Your task to perform on an android device: Open battery settings Image 0: 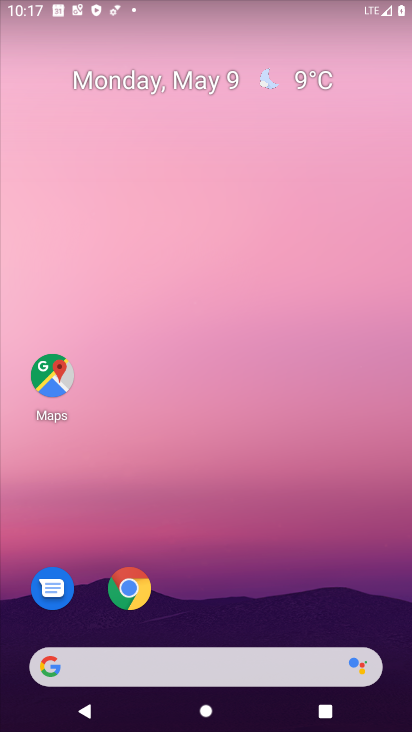
Step 0: press home button
Your task to perform on an android device: Open battery settings Image 1: 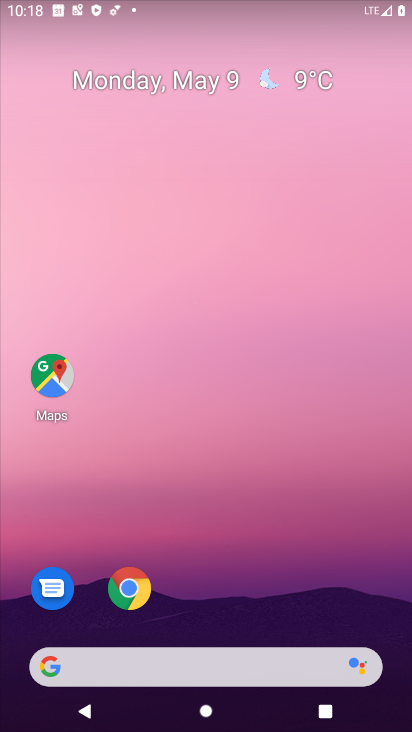
Step 1: drag from (197, 665) to (303, 5)
Your task to perform on an android device: Open battery settings Image 2: 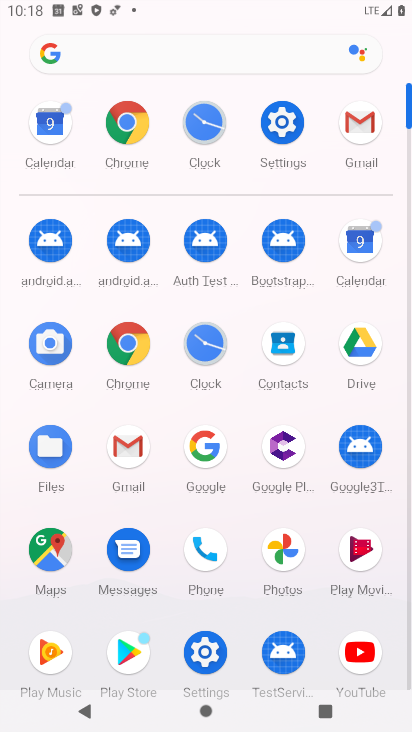
Step 2: click (279, 126)
Your task to perform on an android device: Open battery settings Image 3: 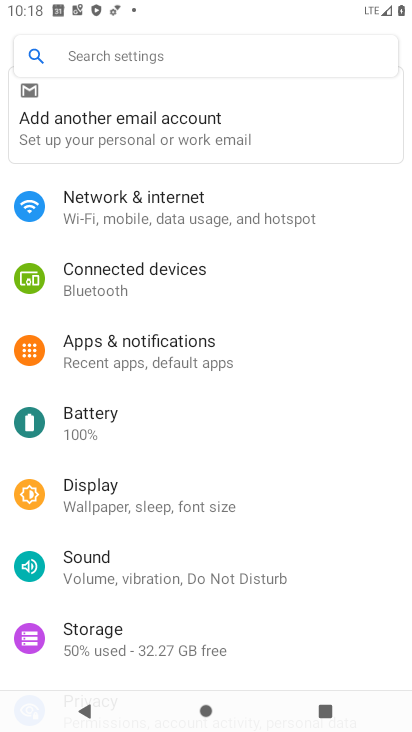
Step 3: click (112, 416)
Your task to perform on an android device: Open battery settings Image 4: 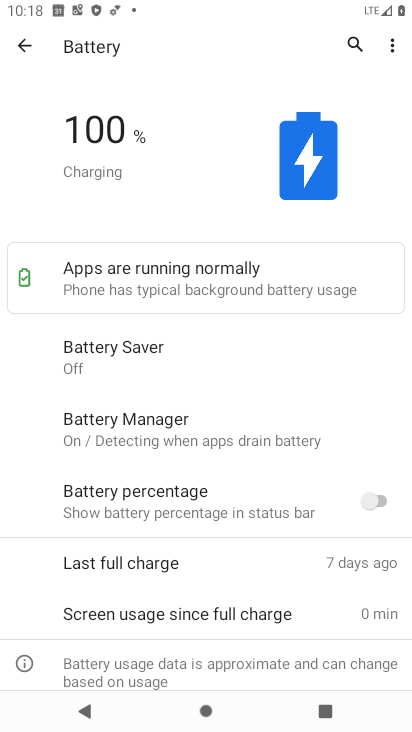
Step 4: task complete